Your task to perform on an android device: Open the downloads Image 0: 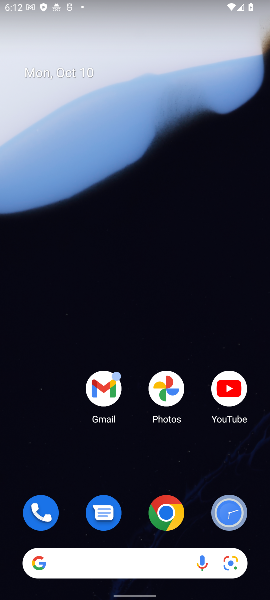
Step 0: click (172, 509)
Your task to perform on an android device: Open the downloads Image 1: 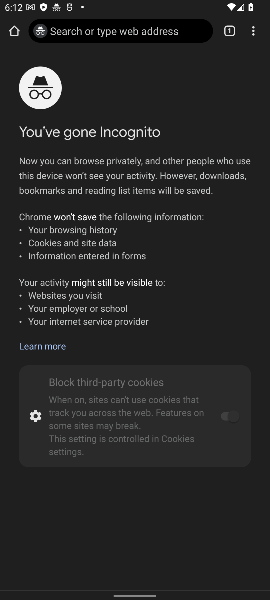
Step 1: click (254, 28)
Your task to perform on an android device: Open the downloads Image 2: 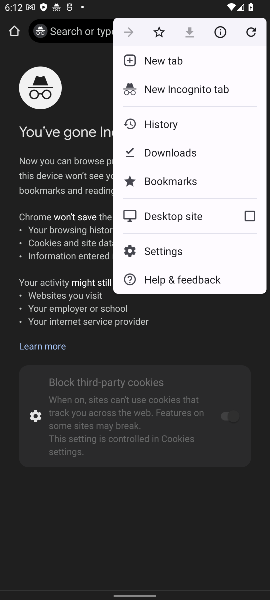
Step 2: click (171, 149)
Your task to perform on an android device: Open the downloads Image 3: 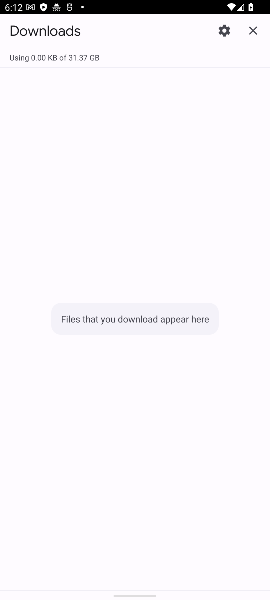
Step 3: task complete